Your task to perform on an android device: Go to CNN.com Image 0: 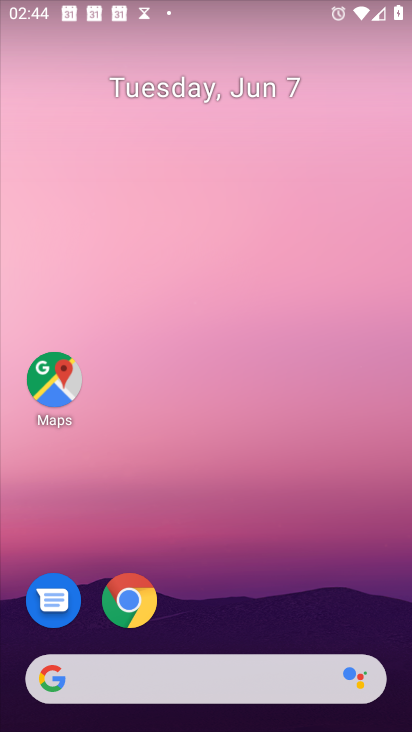
Step 0: click (128, 598)
Your task to perform on an android device: Go to CNN.com Image 1: 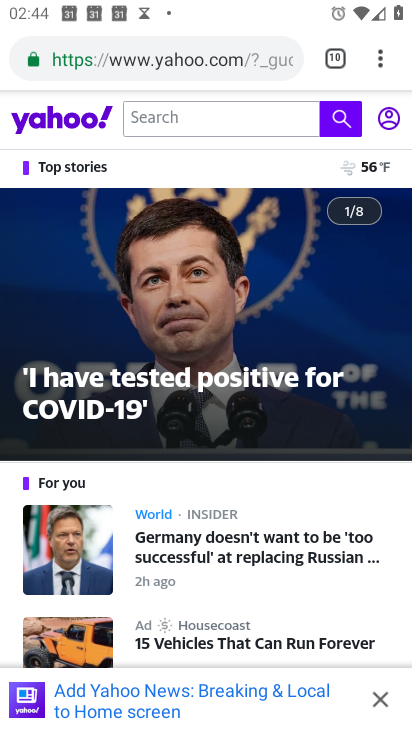
Step 1: click (381, 64)
Your task to perform on an android device: Go to CNN.com Image 2: 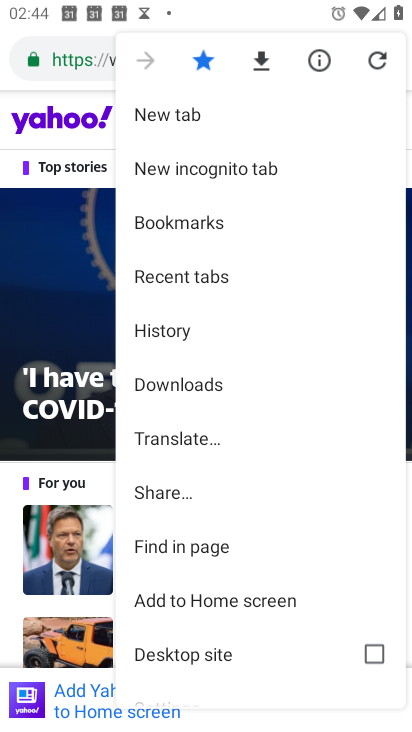
Step 2: click (181, 114)
Your task to perform on an android device: Go to CNN.com Image 3: 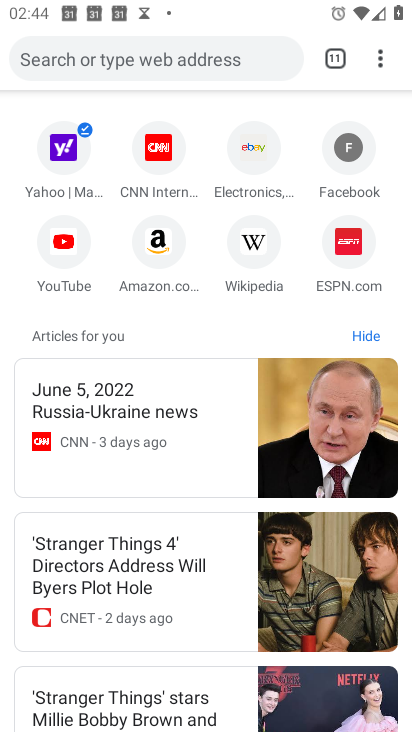
Step 3: click (149, 151)
Your task to perform on an android device: Go to CNN.com Image 4: 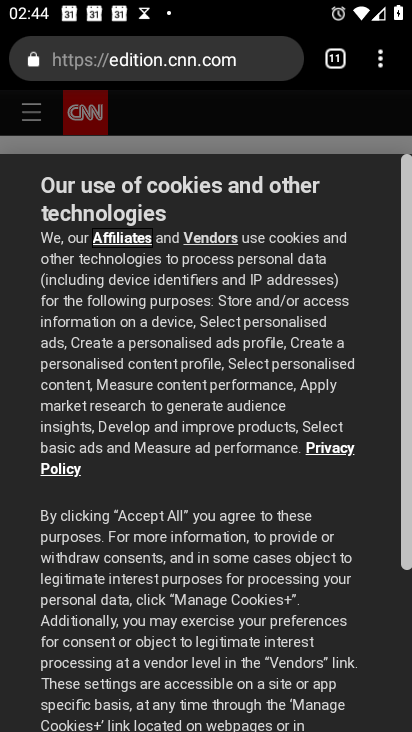
Step 4: task complete